Your task to perform on an android device: Open Maps and search for coffee Image 0: 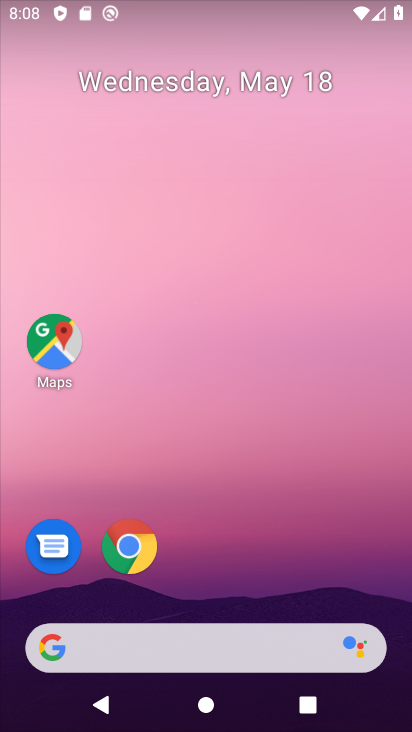
Step 0: drag from (269, 675) to (316, 227)
Your task to perform on an android device: Open Maps and search for coffee Image 1: 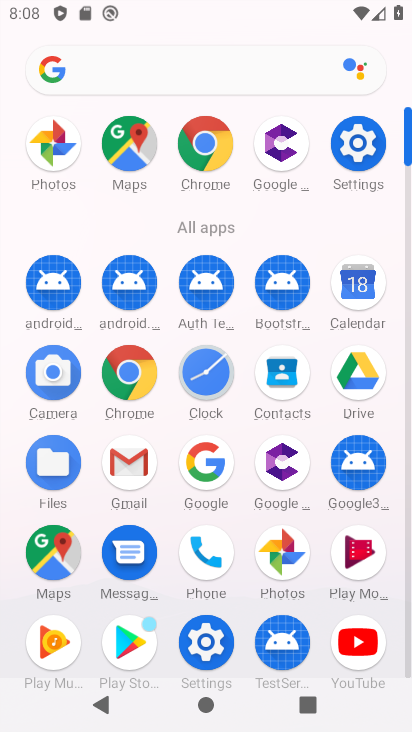
Step 1: click (127, 151)
Your task to perform on an android device: Open Maps and search for coffee Image 2: 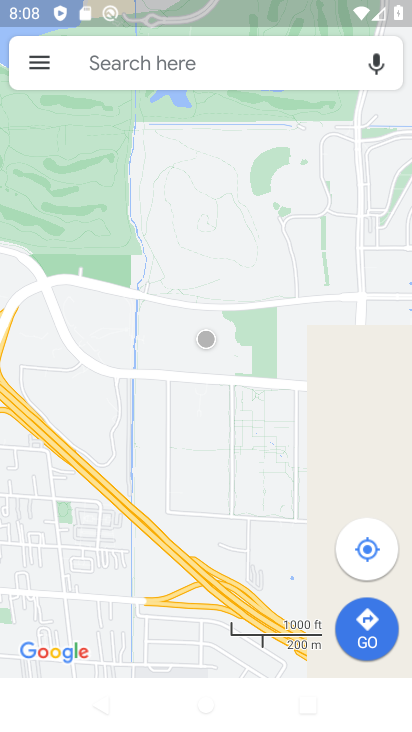
Step 2: click (170, 58)
Your task to perform on an android device: Open Maps and search for coffee Image 3: 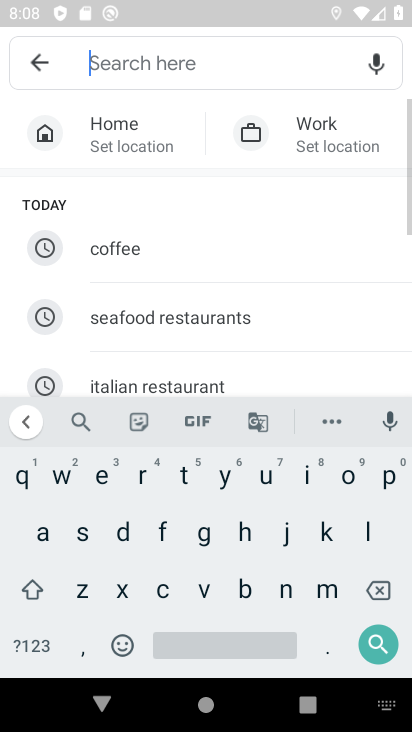
Step 3: click (163, 583)
Your task to perform on an android device: Open Maps and search for coffee Image 4: 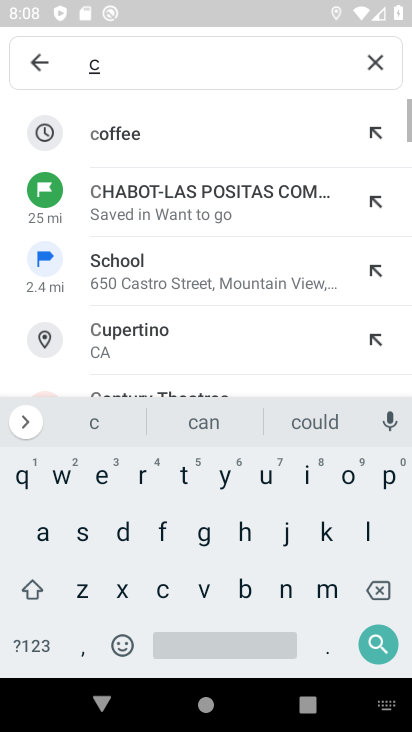
Step 4: click (158, 112)
Your task to perform on an android device: Open Maps and search for coffee Image 5: 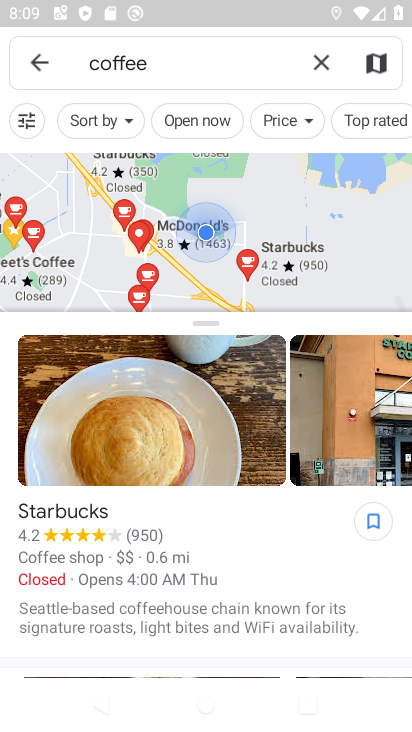
Step 5: click (135, 265)
Your task to perform on an android device: Open Maps and search for coffee Image 6: 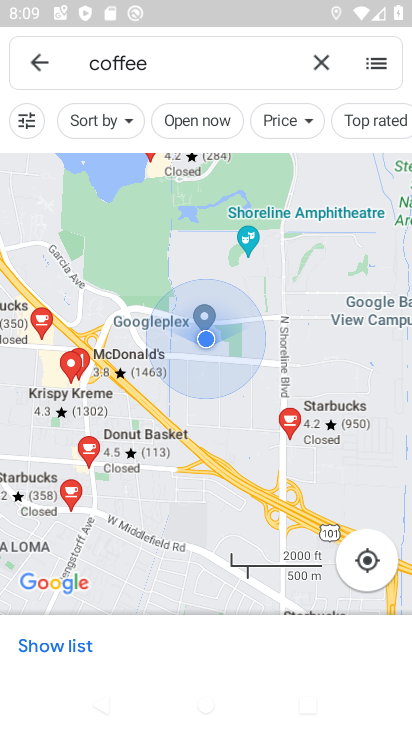
Step 6: task complete